Your task to perform on an android device: What is the news today? Image 0: 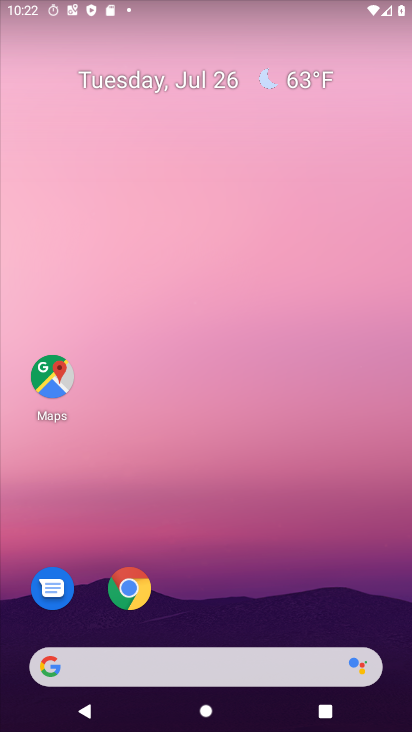
Step 0: click (402, 193)
Your task to perform on an android device: What is the news today? Image 1: 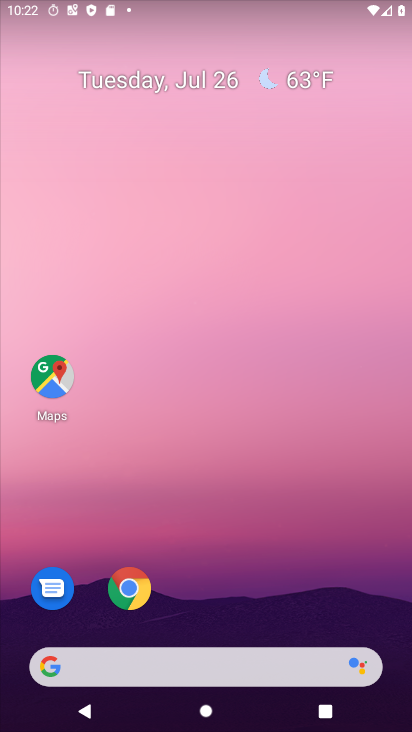
Step 1: click (168, 661)
Your task to perform on an android device: What is the news today? Image 2: 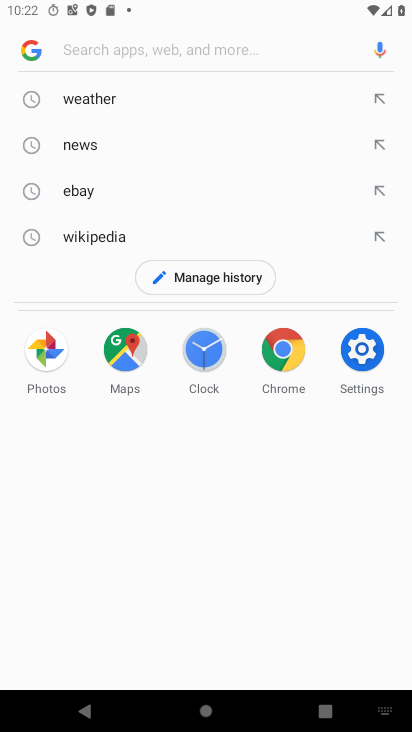
Step 2: click (26, 48)
Your task to perform on an android device: What is the news today? Image 3: 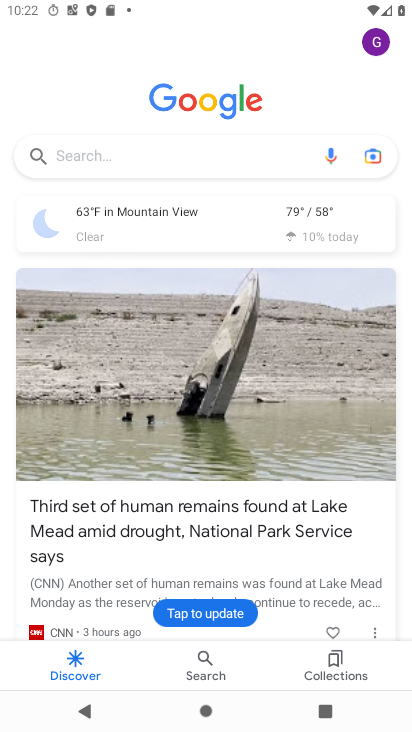
Step 3: task complete